Your task to perform on an android device: check storage Image 0: 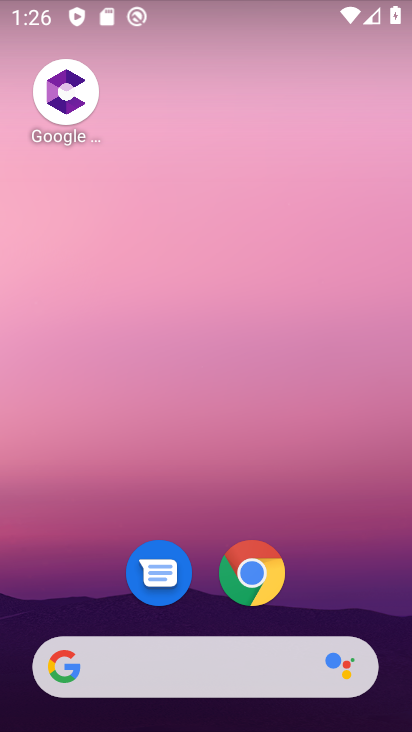
Step 0: drag from (309, 596) to (281, 51)
Your task to perform on an android device: check storage Image 1: 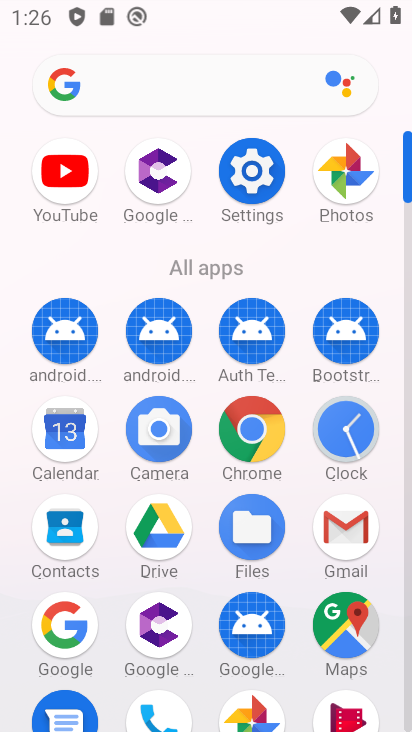
Step 1: click (239, 176)
Your task to perform on an android device: check storage Image 2: 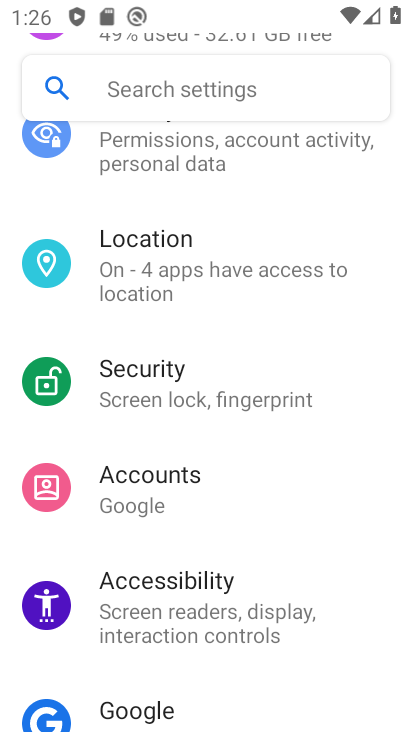
Step 2: drag from (181, 259) to (116, 548)
Your task to perform on an android device: check storage Image 3: 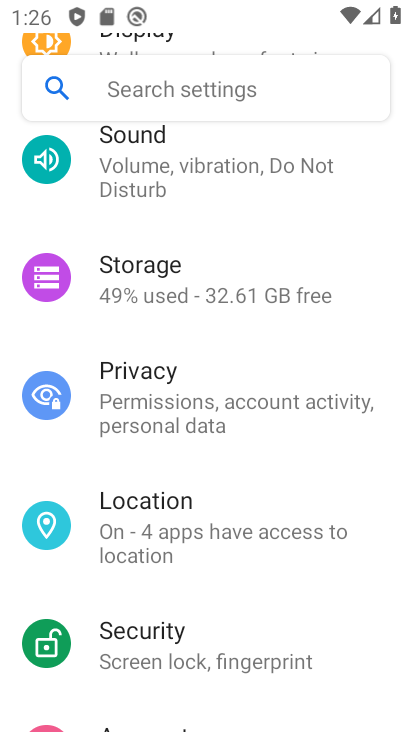
Step 3: click (181, 297)
Your task to perform on an android device: check storage Image 4: 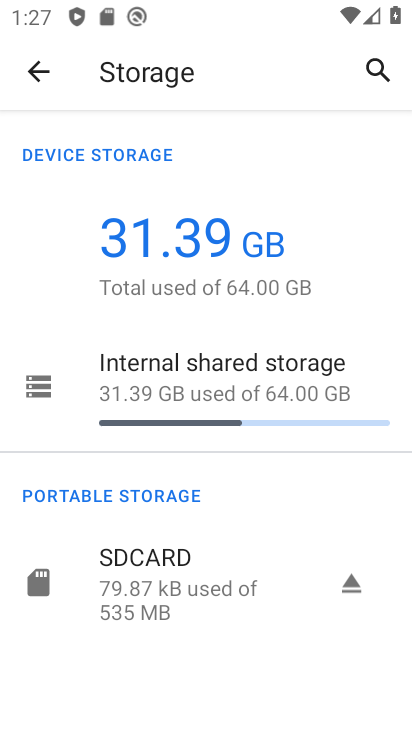
Step 4: task complete